Your task to perform on an android device: set an alarm Image 0: 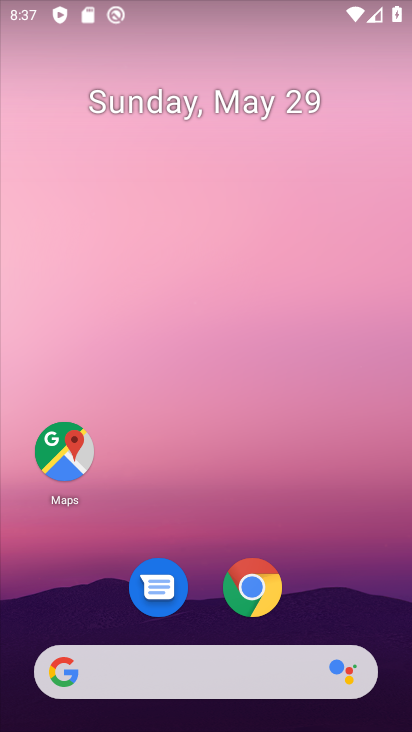
Step 0: drag from (234, 351) to (36, 22)
Your task to perform on an android device: set an alarm Image 1: 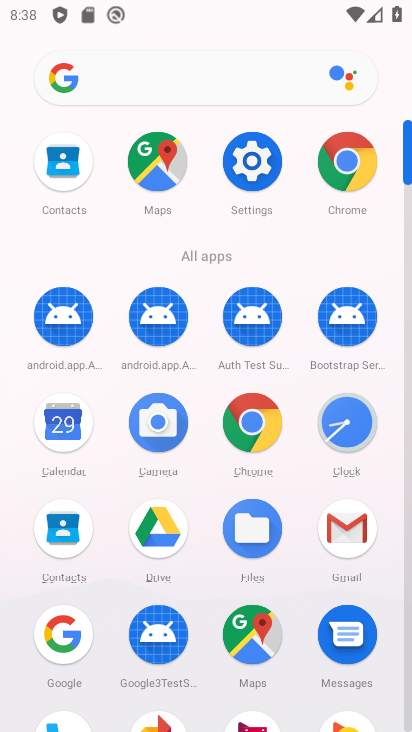
Step 1: click (357, 432)
Your task to perform on an android device: set an alarm Image 2: 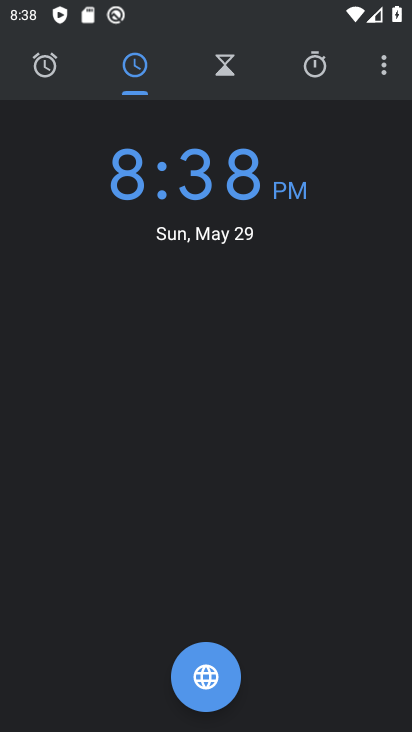
Step 2: click (374, 59)
Your task to perform on an android device: set an alarm Image 3: 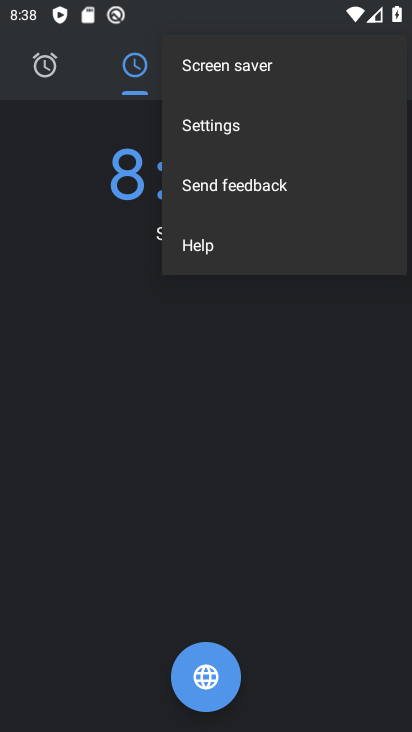
Step 3: click (269, 139)
Your task to perform on an android device: set an alarm Image 4: 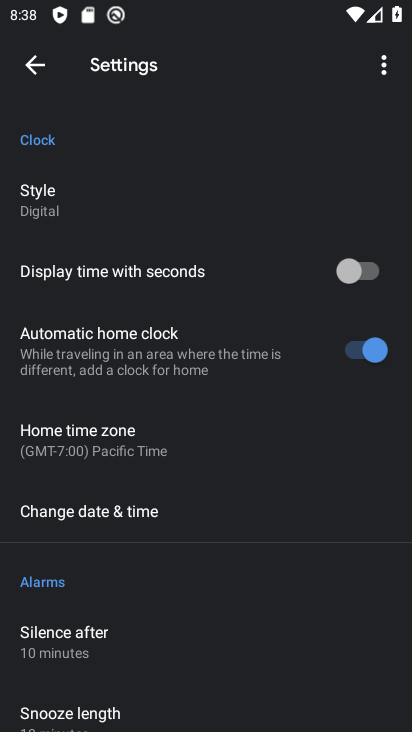
Step 4: click (25, 66)
Your task to perform on an android device: set an alarm Image 5: 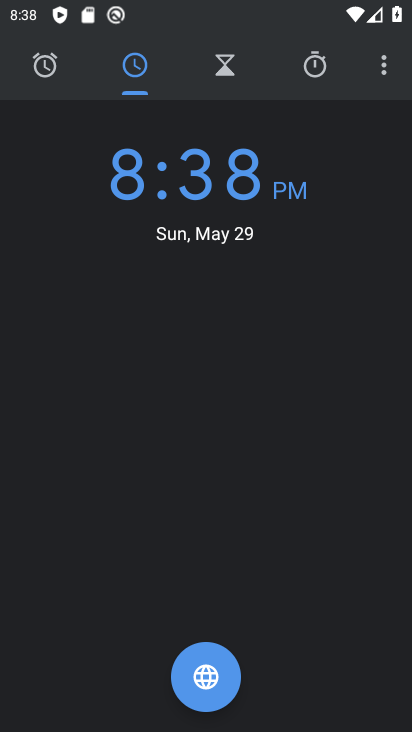
Step 5: click (34, 54)
Your task to perform on an android device: set an alarm Image 6: 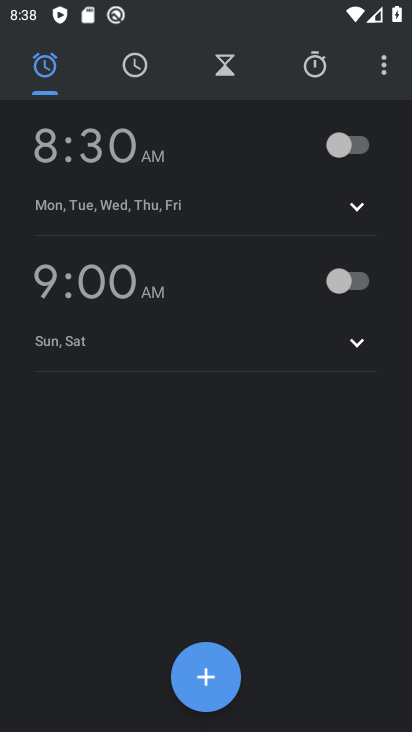
Step 6: click (371, 152)
Your task to perform on an android device: set an alarm Image 7: 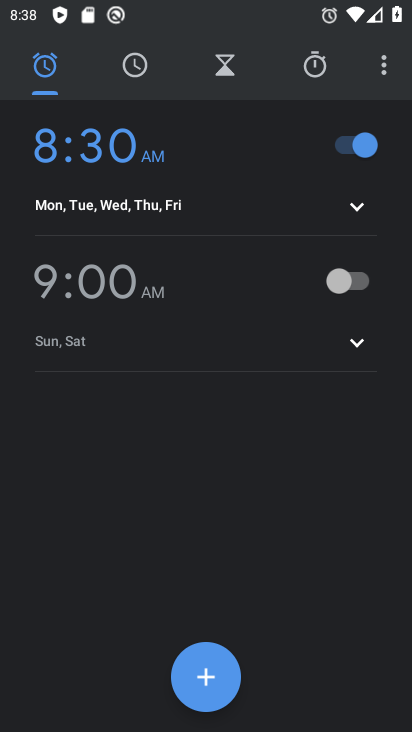
Step 7: task complete